Your task to perform on an android device: Add razer deathadder to the cart on newegg, then select checkout. Image 0: 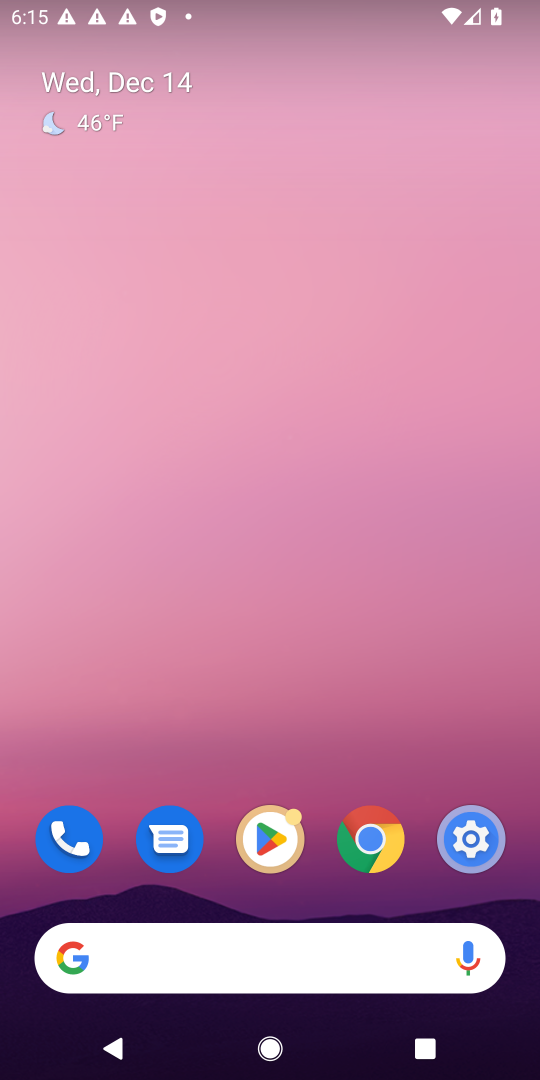
Step 0: click (349, 968)
Your task to perform on an android device: Add razer deathadder to the cart on newegg, then select checkout. Image 1: 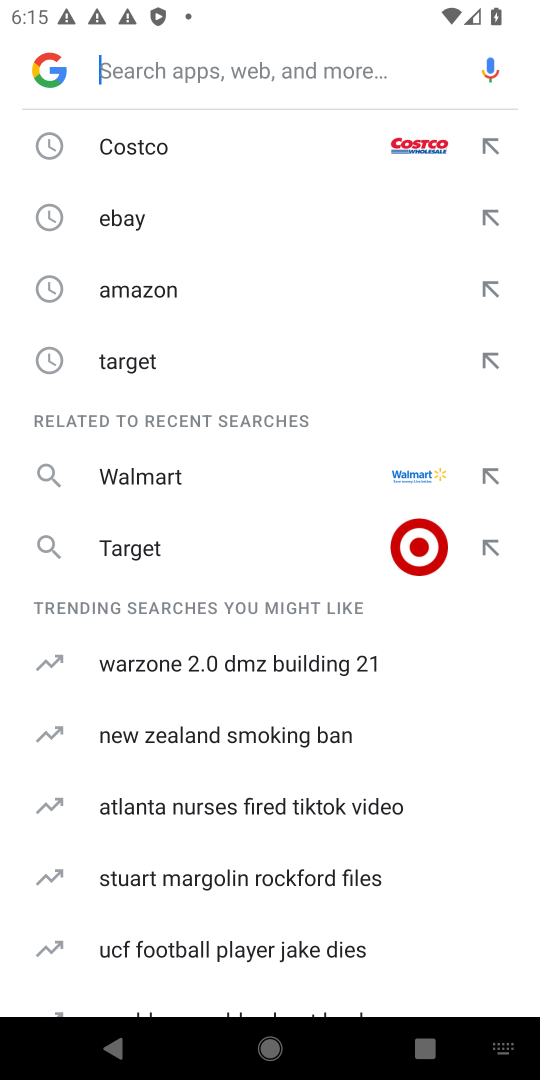
Step 1: type "newegg"
Your task to perform on an android device: Add razer deathadder to the cart on newegg, then select checkout. Image 2: 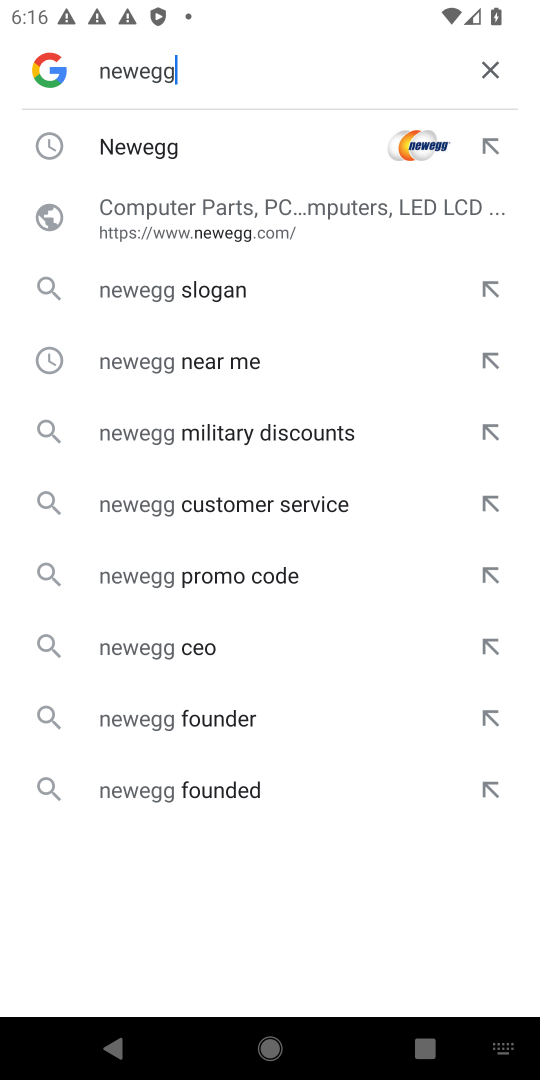
Step 2: click (158, 156)
Your task to perform on an android device: Add razer deathadder to the cart on newegg, then select checkout. Image 3: 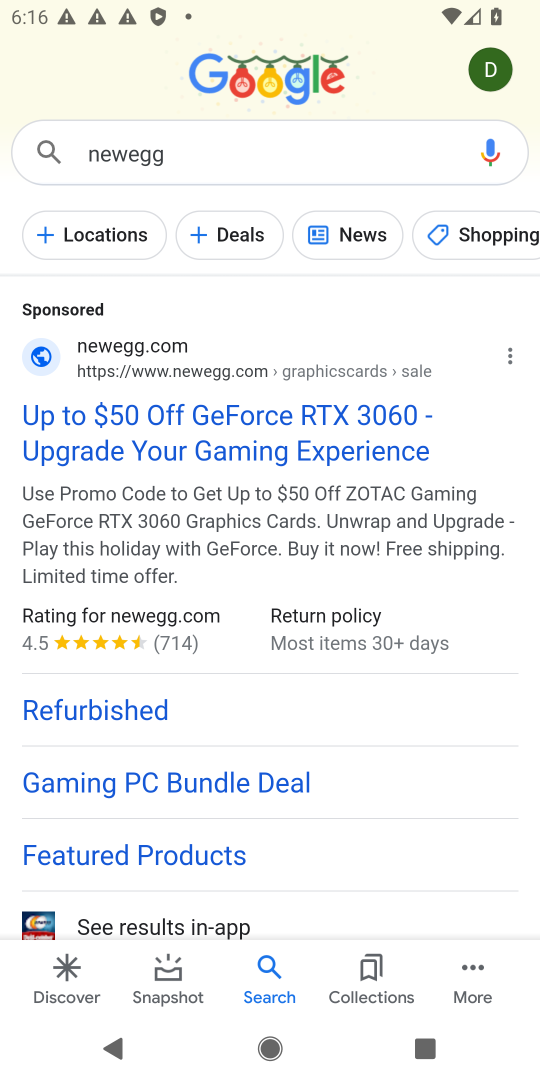
Step 3: click (96, 414)
Your task to perform on an android device: Add razer deathadder to the cart on newegg, then select checkout. Image 4: 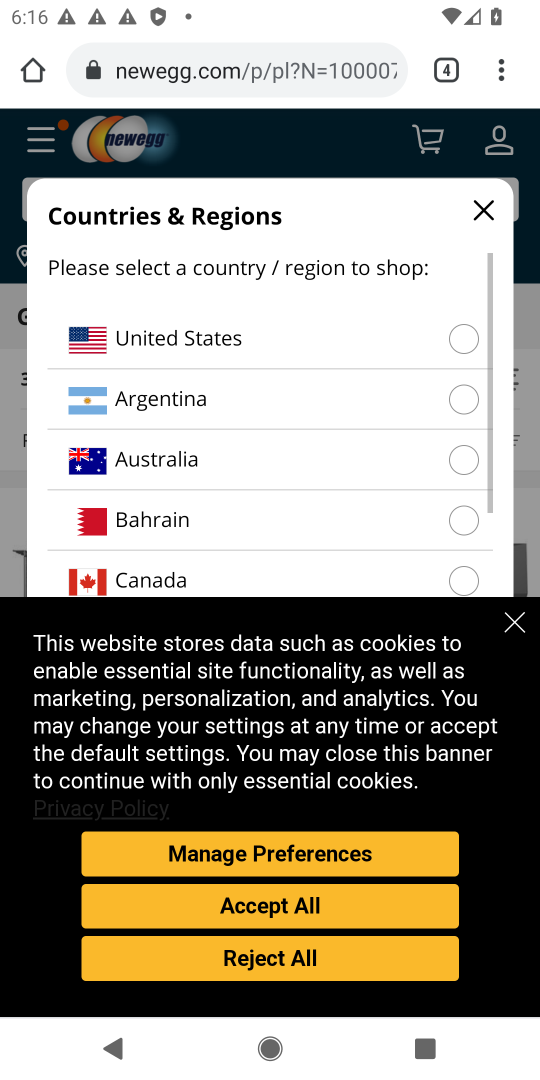
Step 4: click (277, 893)
Your task to perform on an android device: Add razer deathadder to the cart on newegg, then select checkout. Image 5: 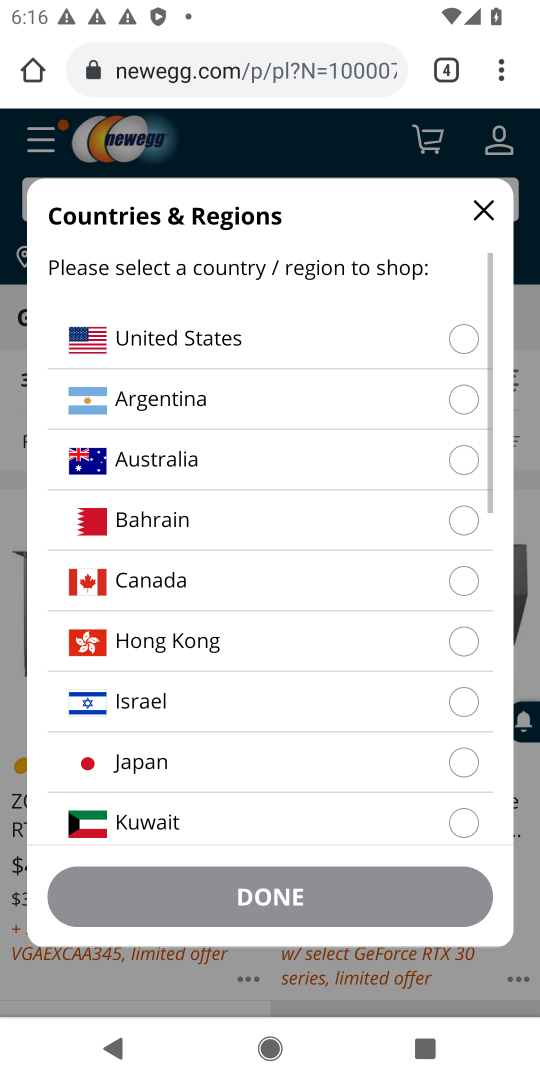
Step 5: click (265, 355)
Your task to perform on an android device: Add razer deathadder to the cart on newegg, then select checkout. Image 6: 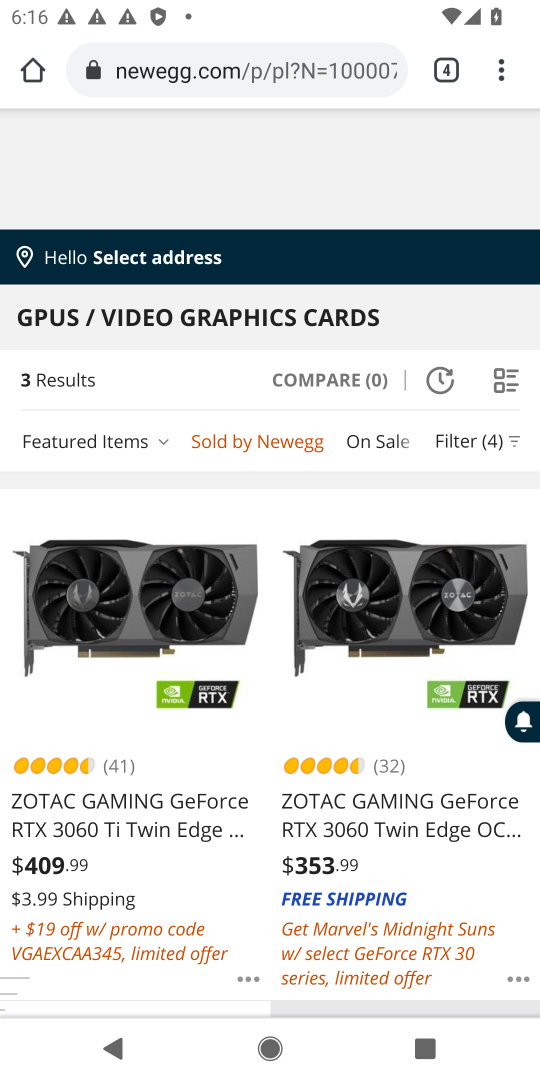
Step 6: drag from (325, 650) to (342, 456)
Your task to perform on an android device: Add razer deathadder to the cart on newegg, then select checkout. Image 7: 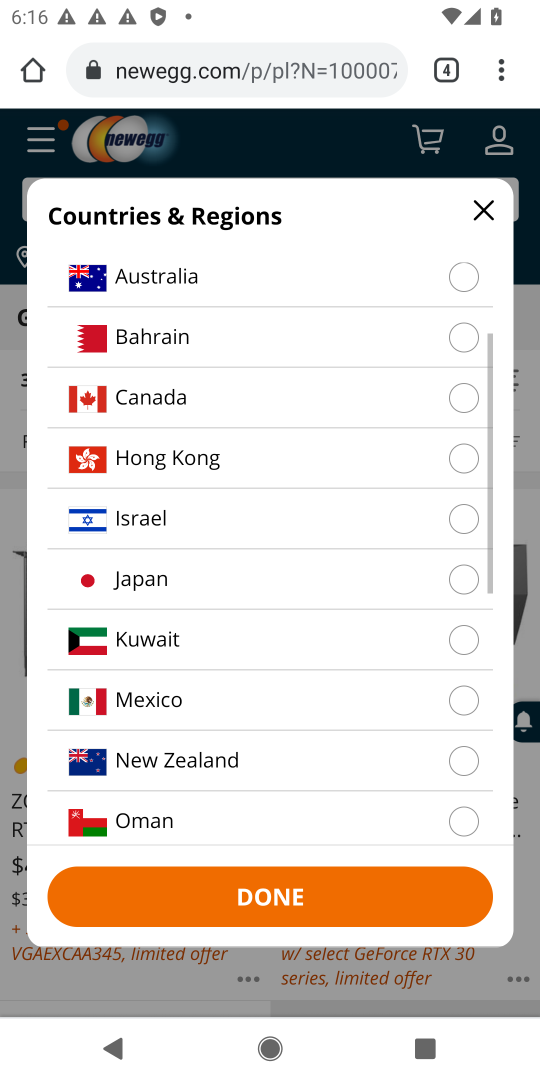
Step 7: click (250, 616)
Your task to perform on an android device: Add razer deathadder to the cart on newegg, then select checkout. Image 8: 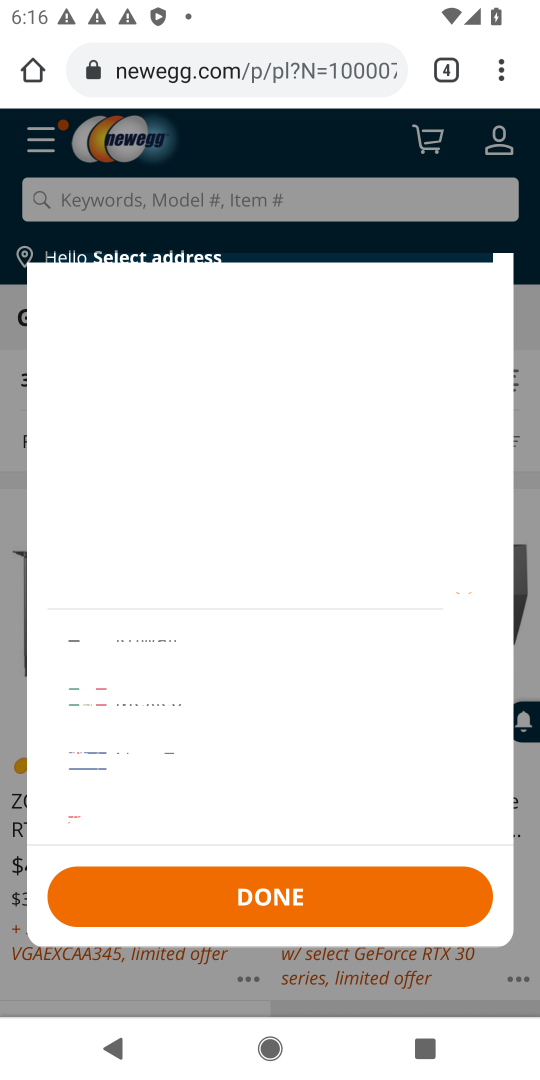
Step 8: click (211, 909)
Your task to perform on an android device: Add razer deathadder to the cart on newegg, then select checkout. Image 9: 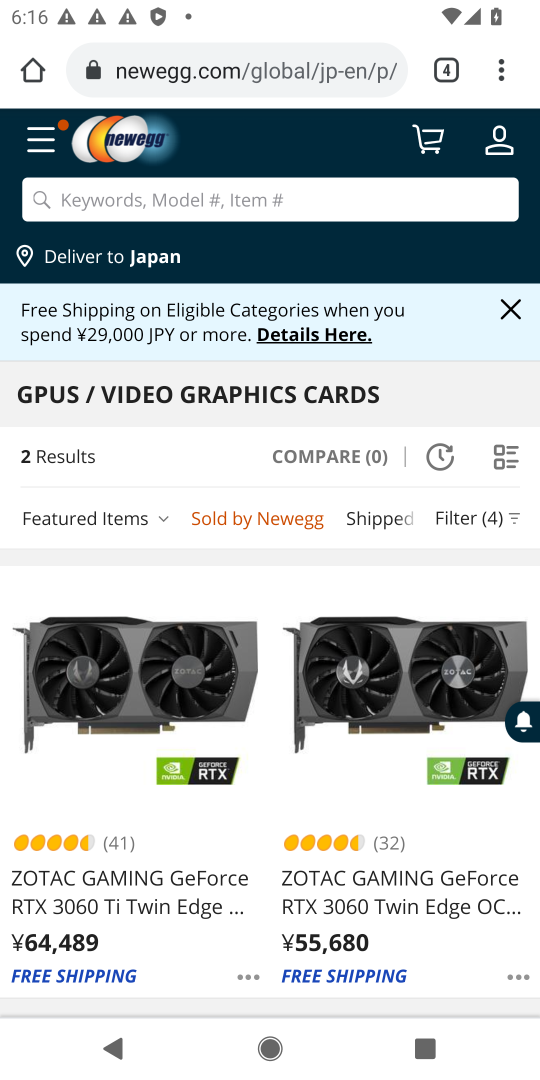
Step 9: click (242, 203)
Your task to perform on an android device: Add razer deathadder to the cart on newegg, then select checkout. Image 10: 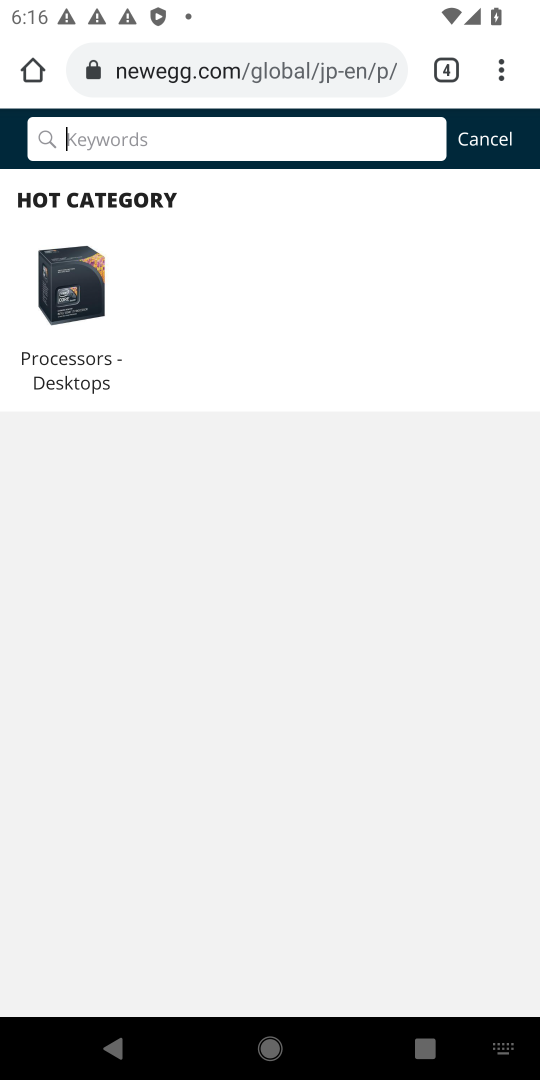
Step 10: type "razer deathadder"
Your task to perform on an android device: Add razer deathadder to the cart on newegg, then select checkout. Image 11: 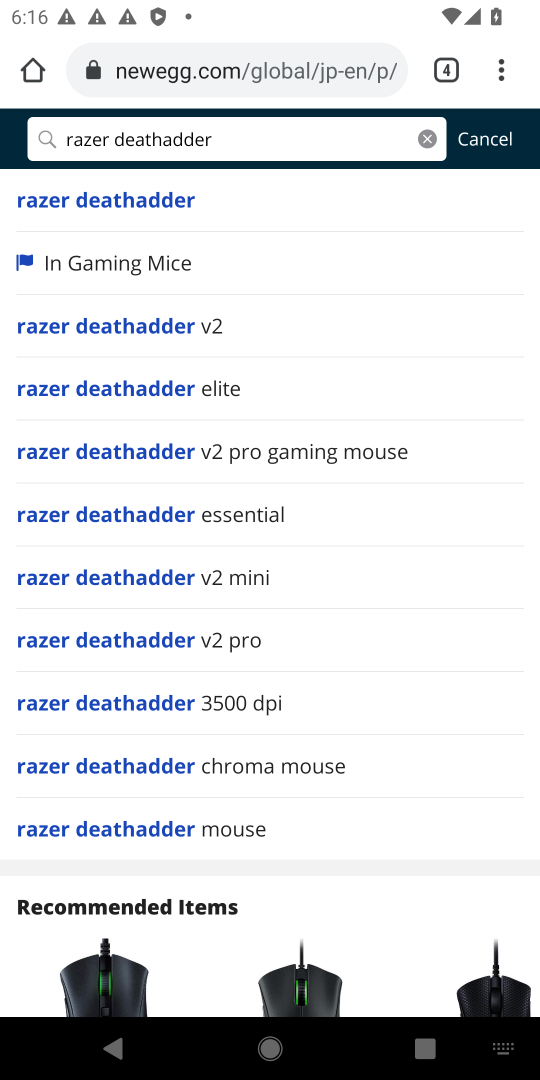
Step 11: click (149, 202)
Your task to perform on an android device: Add razer deathadder to the cart on newegg, then select checkout. Image 12: 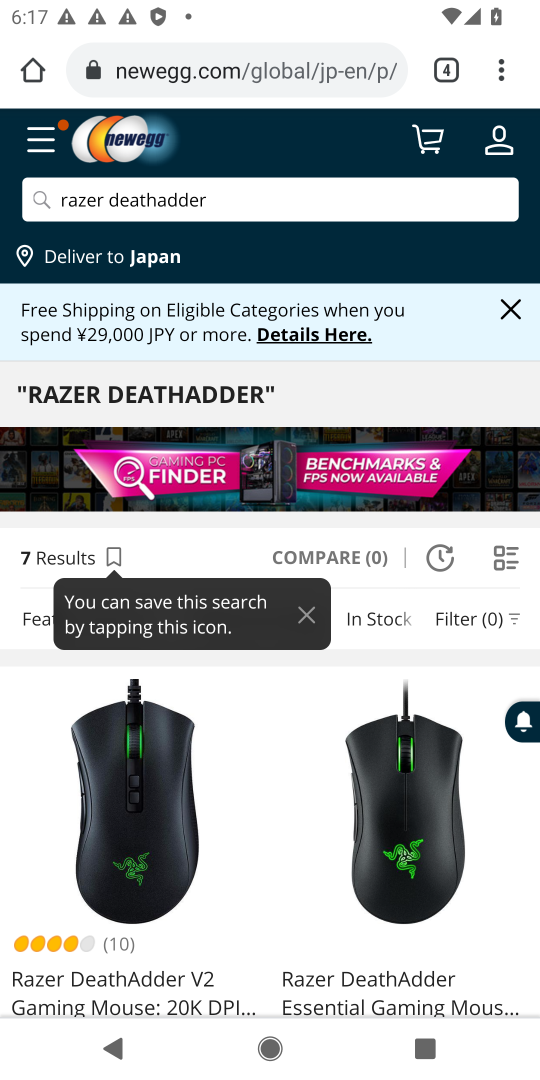
Step 12: click (509, 325)
Your task to perform on an android device: Add razer deathadder to the cart on newegg, then select checkout. Image 13: 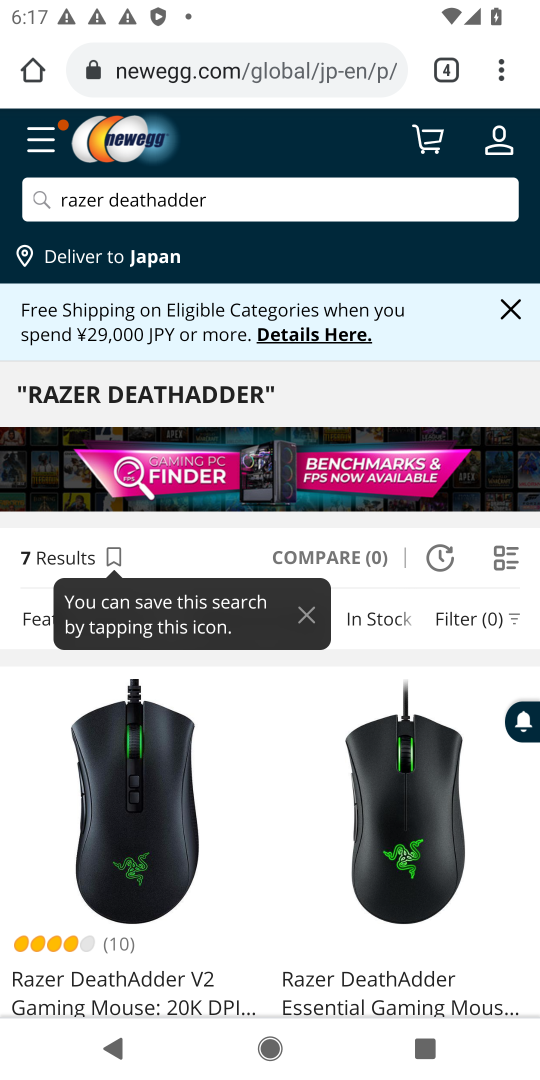
Step 13: click (96, 948)
Your task to perform on an android device: Add razer deathadder to the cart on newegg, then select checkout. Image 14: 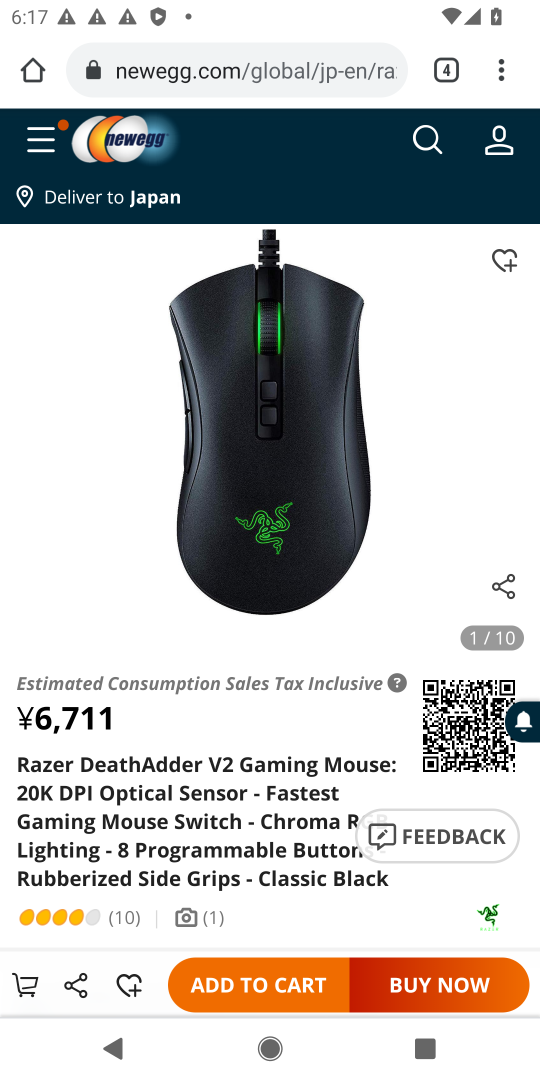
Step 14: click (248, 970)
Your task to perform on an android device: Add razer deathadder to the cart on newegg, then select checkout. Image 15: 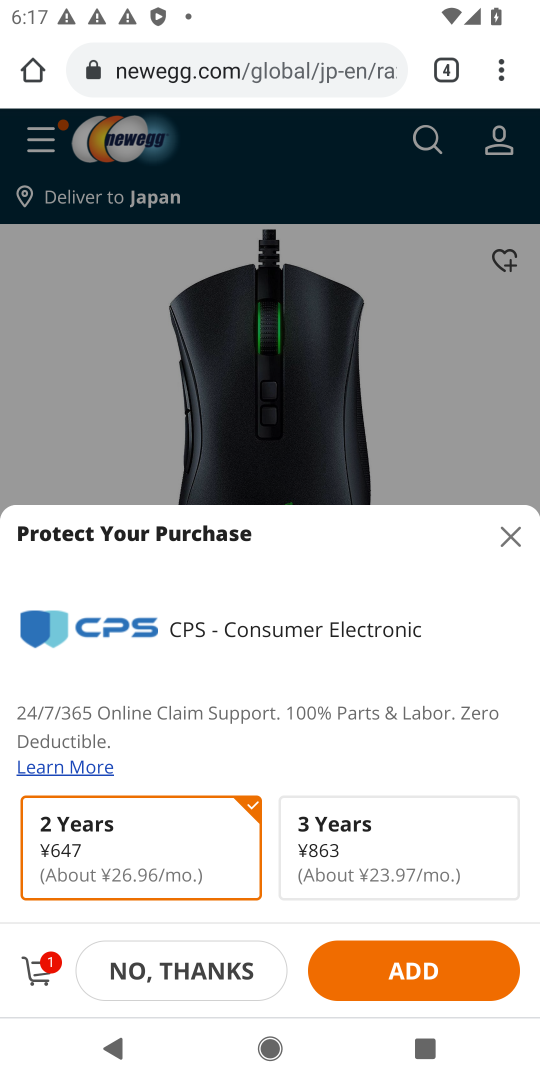
Step 15: task complete